Your task to perform on an android device: Open Youtube and go to "Your channel" Image 0: 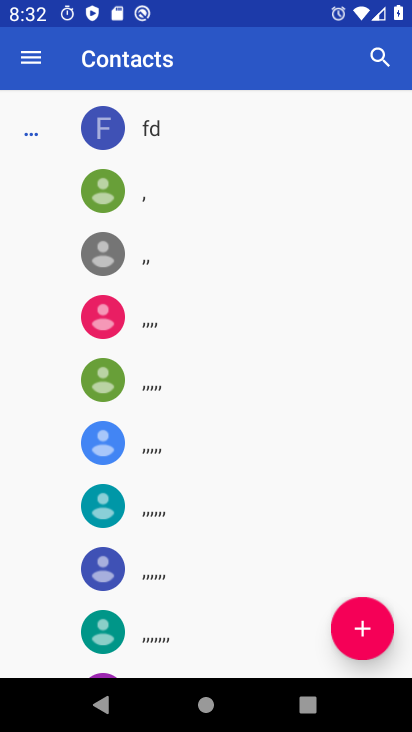
Step 0: press home button
Your task to perform on an android device: Open Youtube and go to "Your channel" Image 1: 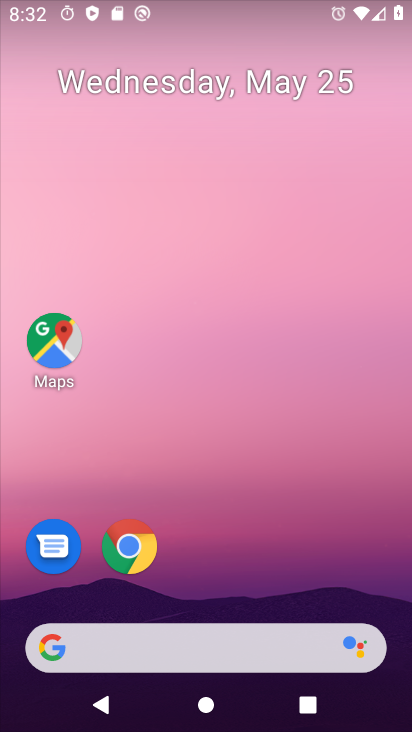
Step 1: drag from (216, 608) to (235, 121)
Your task to perform on an android device: Open Youtube and go to "Your channel" Image 2: 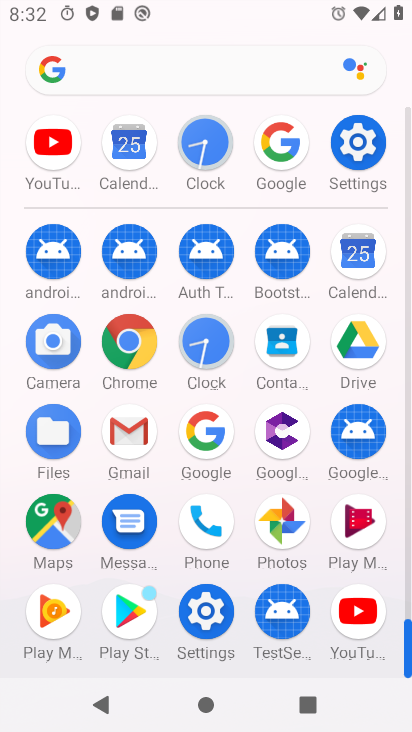
Step 2: click (364, 635)
Your task to perform on an android device: Open Youtube and go to "Your channel" Image 3: 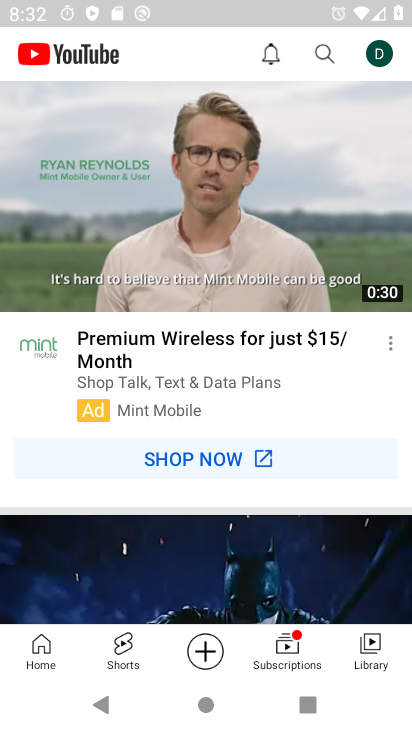
Step 3: click (388, 53)
Your task to perform on an android device: Open Youtube and go to "Your channel" Image 4: 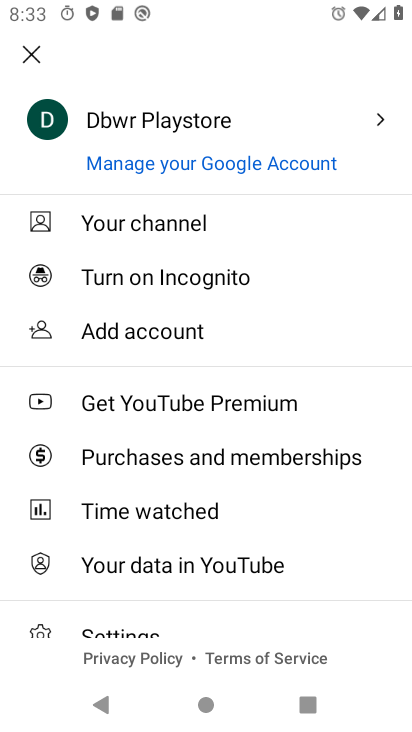
Step 4: click (192, 236)
Your task to perform on an android device: Open Youtube and go to "Your channel" Image 5: 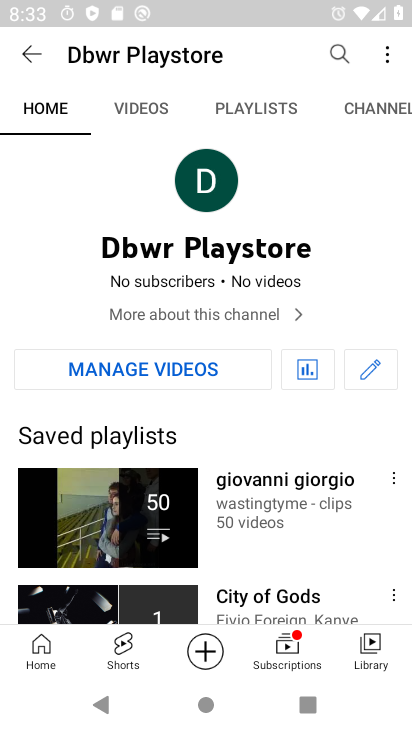
Step 5: task complete